Your task to perform on an android device: turn off improve location accuracy Image 0: 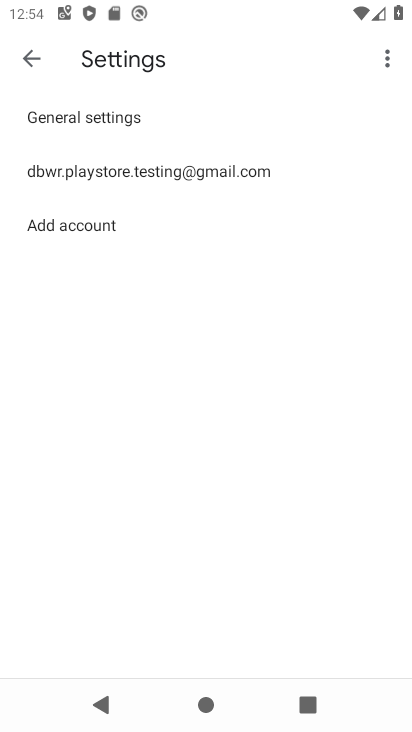
Step 0: press home button
Your task to perform on an android device: turn off improve location accuracy Image 1: 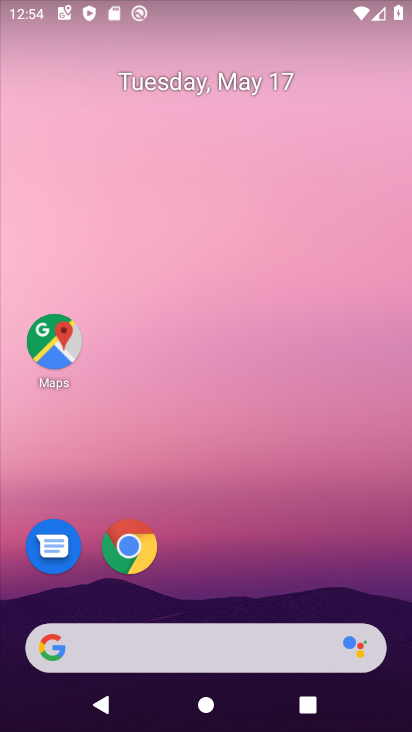
Step 1: drag from (387, 602) to (365, 5)
Your task to perform on an android device: turn off improve location accuracy Image 2: 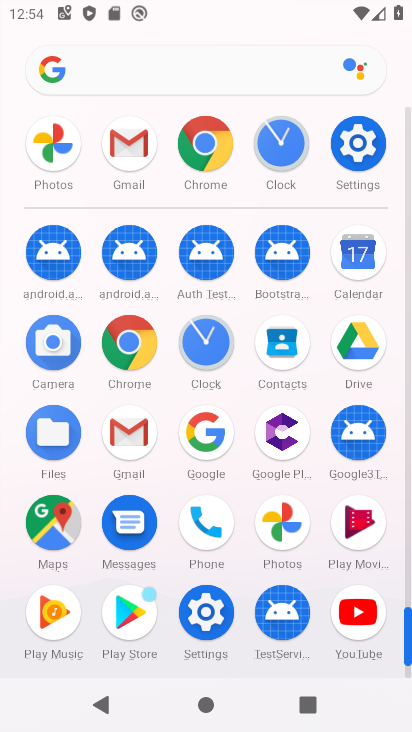
Step 2: click (406, 672)
Your task to perform on an android device: turn off improve location accuracy Image 3: 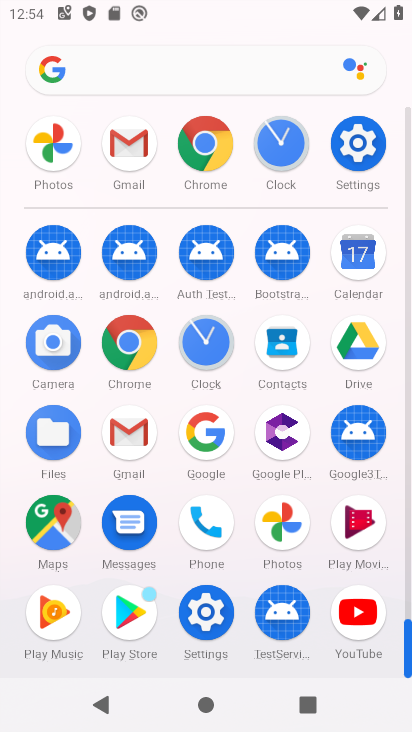
Step 3: click (204, 607)
Your task to perform on an android device: turn off improve location accuracy Image 4: 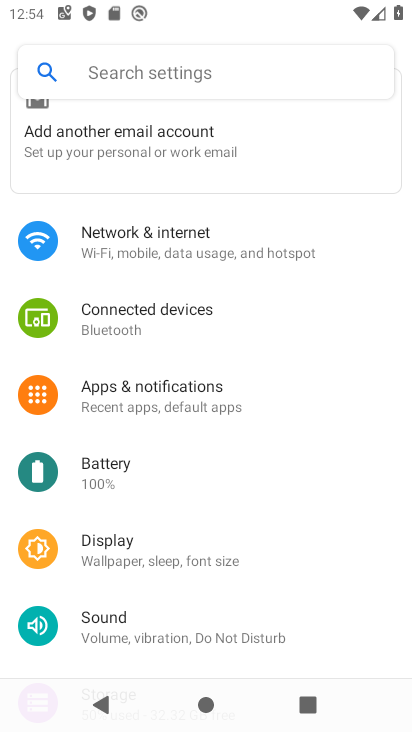
Step 4: drag from (201, 620) to (253, 141)
Your task to perform on an android device: turn off improve location accuracy Image 5: 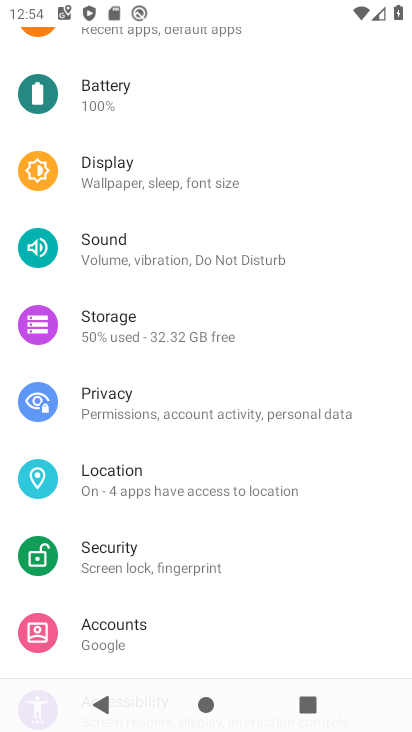
Step 5: drag from (245, 556) to (264, 339)
Your task to perform on an android device: turn off improve location accuracy Image 6: 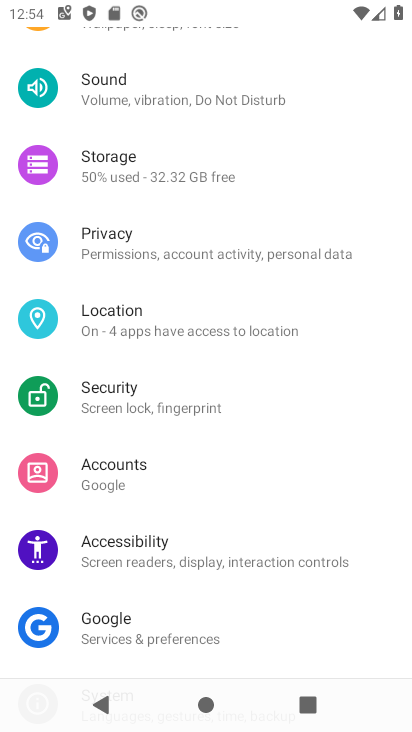
Step 6: click (126, 320)
Your task to perform on an android device: turn off improve location accuracy Image 7: 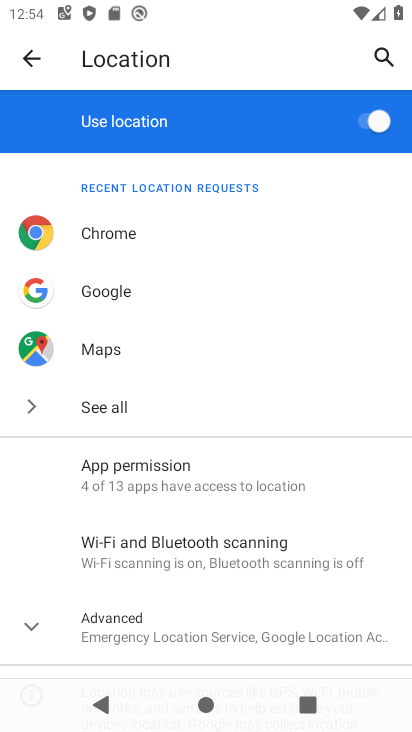
Step 7: click (29, 637)
Your task to perform on an android device: turn off improve location accuracy Image 8: 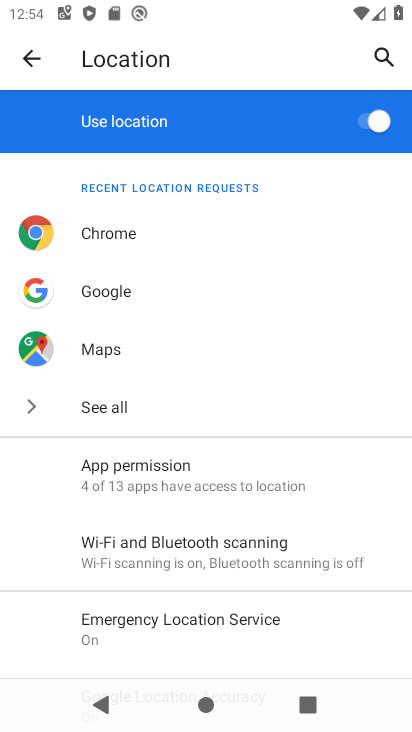
Step 8: drag from (311, 613) to (329, 216)
Your task to perform on an android device: turn off improve location accuracy Image 9: 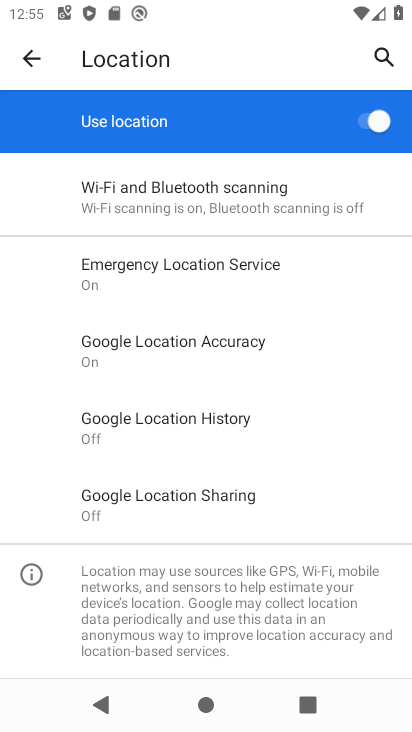
Step 9: click (180, 341)
Your task to perform on an android device: turn off improve location accuracy Image 10: 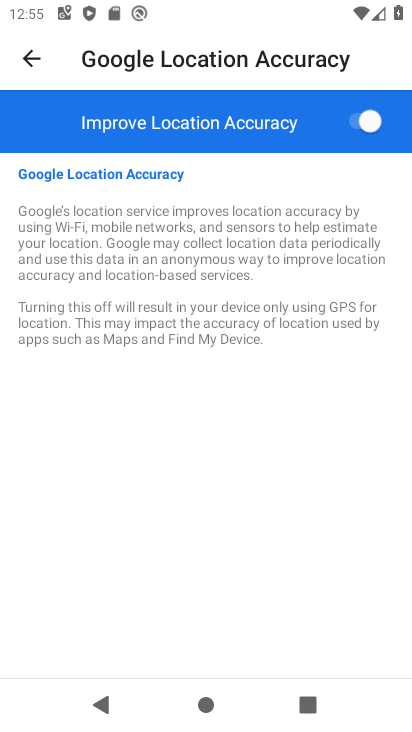
Step 10: click (351, 116)
Your task to perform on an android device: turn off improve location accuracy Image 11: 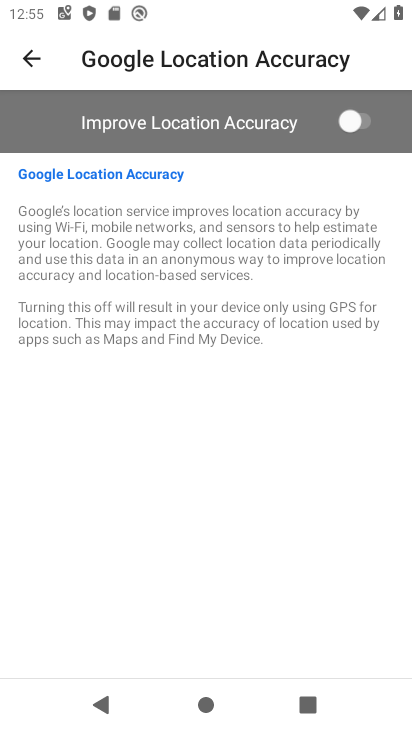
Step 11: task complete